Your task to perform on an android device: Empty the shopping cart on bestbuy.com. Add razer blade to the cart on bestbuy.com Image 0: 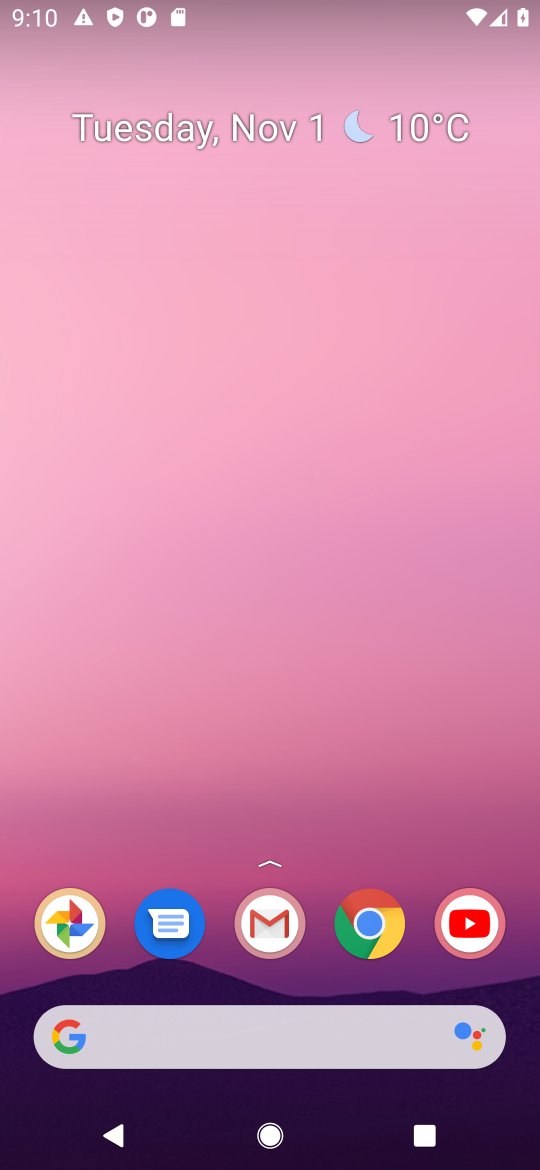
Step 0: drag from (316, 972) to (395, 115)
Your task to perform on an android device: Empty the shopping cart on bestbuy.com. Add razer blade to the cart on bestbuy.com Image 1: 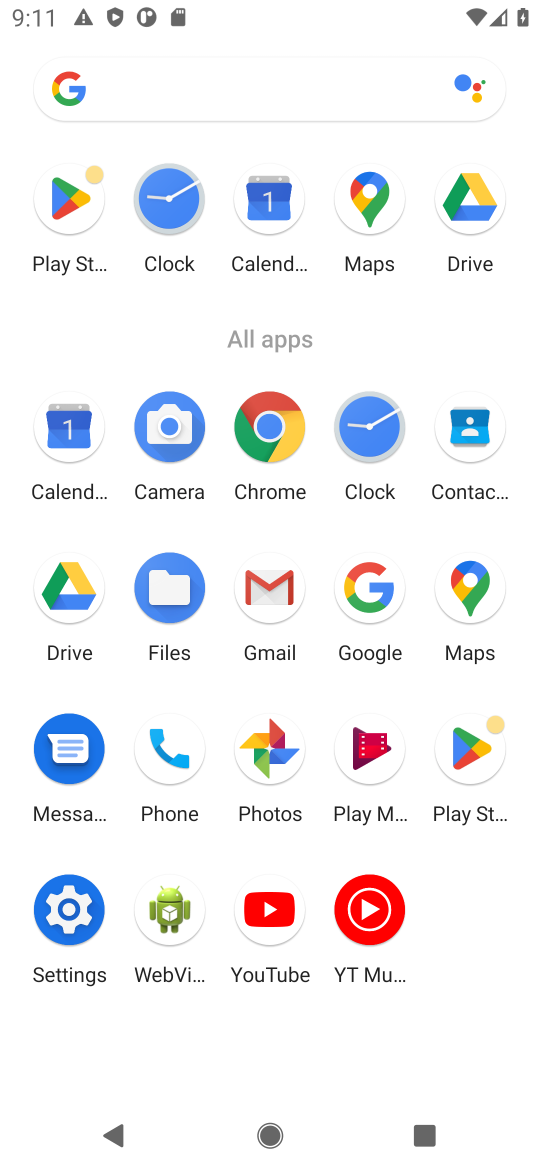
Step 1: click (273, 424)
Your task to perform on an android device: Empty the shopping cart on bestbuy.com. Add razer blade to the cart on bestbuy.com Image 2: 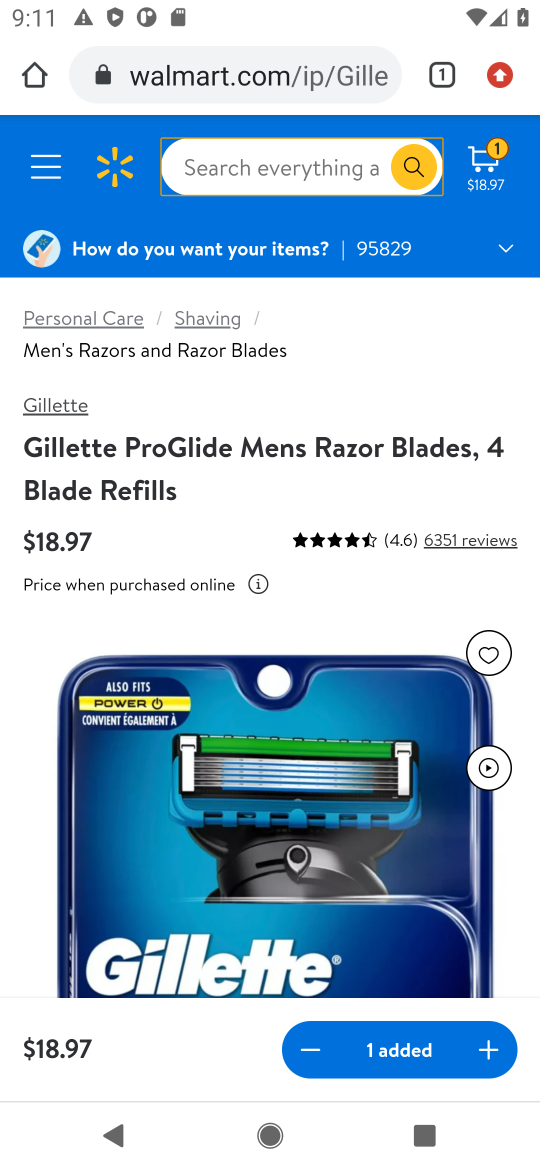
Step 2: click (313, 51)
Your task to perform on an android device: Empty the shopping cart on bestbuy.com. Add razer blade to the cart on bestbuy.com Image 3: 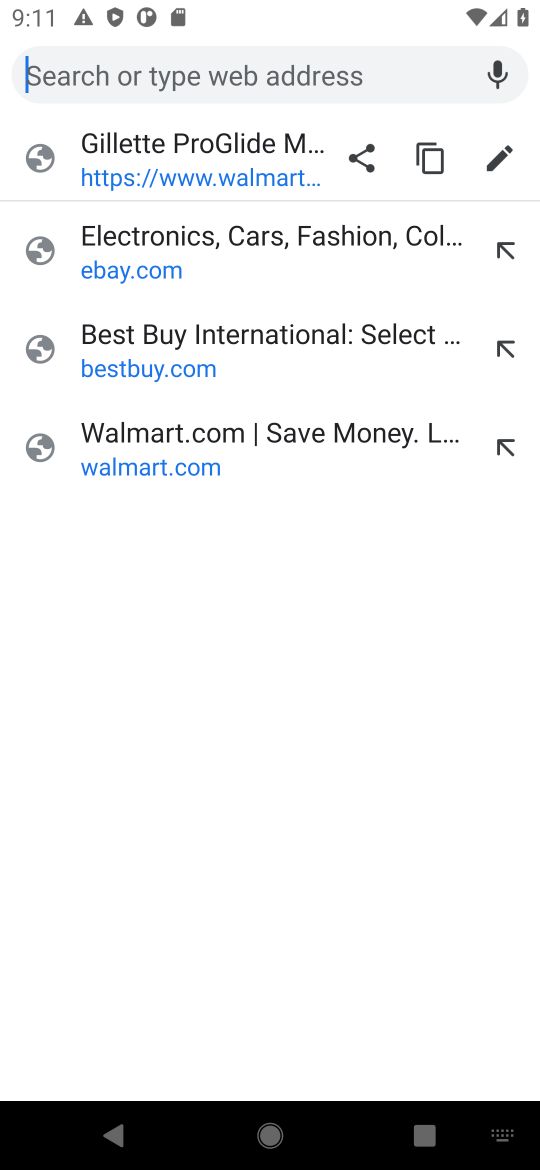
Step 3: type "bestbuy.com"
Your task to perform on an android device: Empty the shopping cart on bestbuy.com. Add razer blade to the cart on bestbuy.com Image 4: 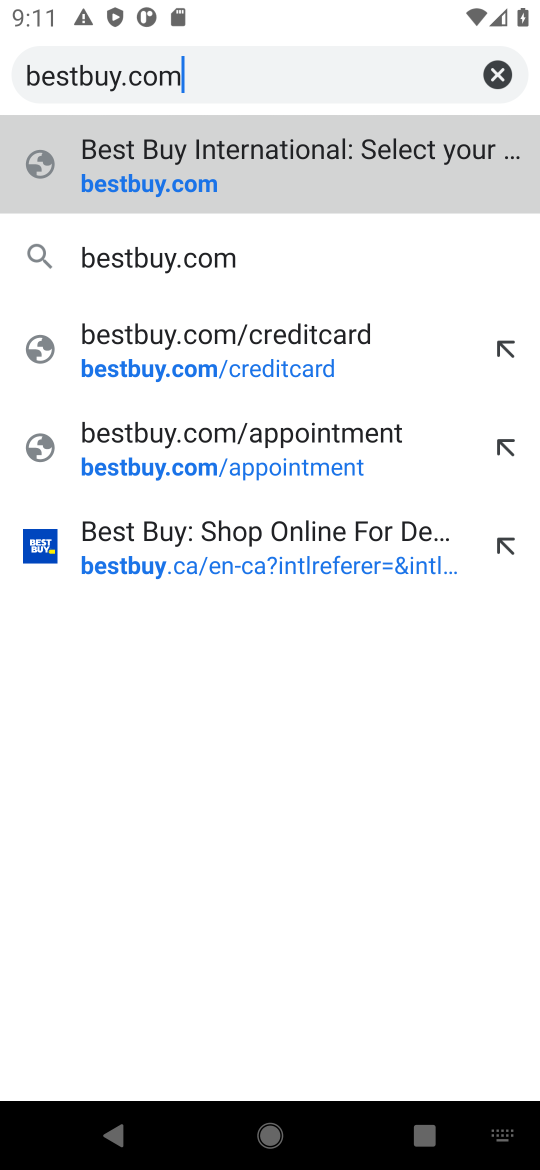
Step 4: press enter
Your task to perform on an android device: Empty the shopping cart on bestbuy.com. Add razer blade to the cart on bestbuy.com Image 5: 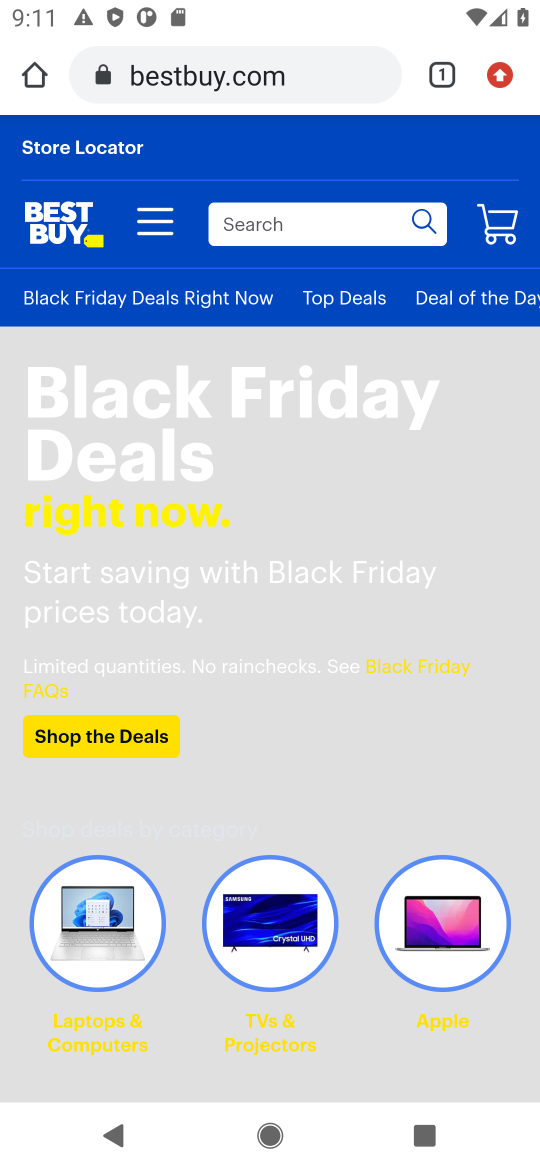
Step 5: click (502, 228)
Your task to perform on an android device: Empty the shopping cart on bestbuy.com. Add razer blade to the cart on bestbuy.com Image 6: 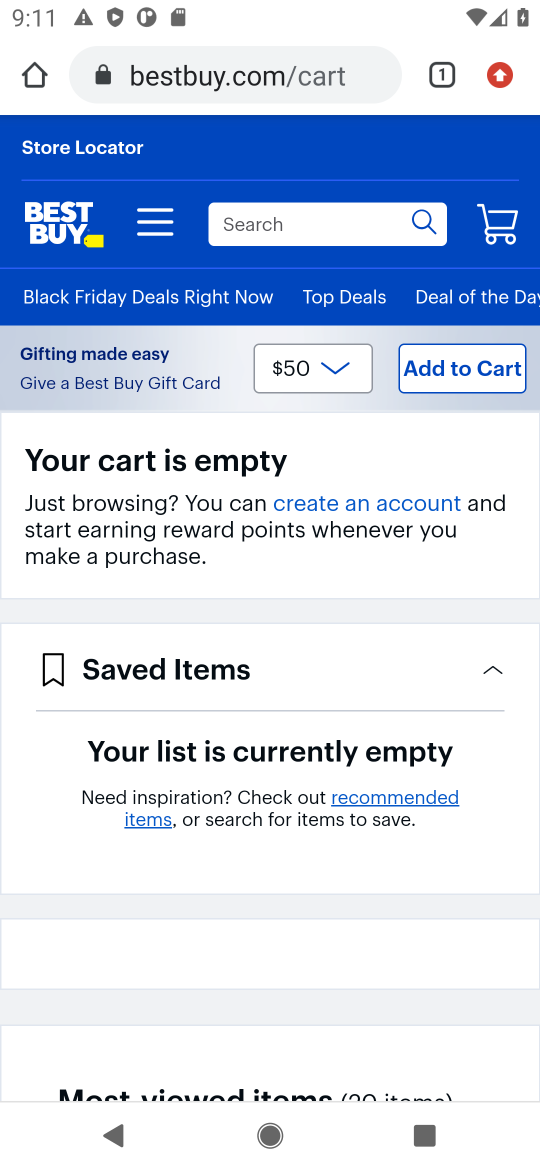
Step 6: click (303, 222)
Your task to perform on an android device: Empty the shopping cart on bestbuy.com. Add razer blade to the cart on bestbuy.com Image 7: 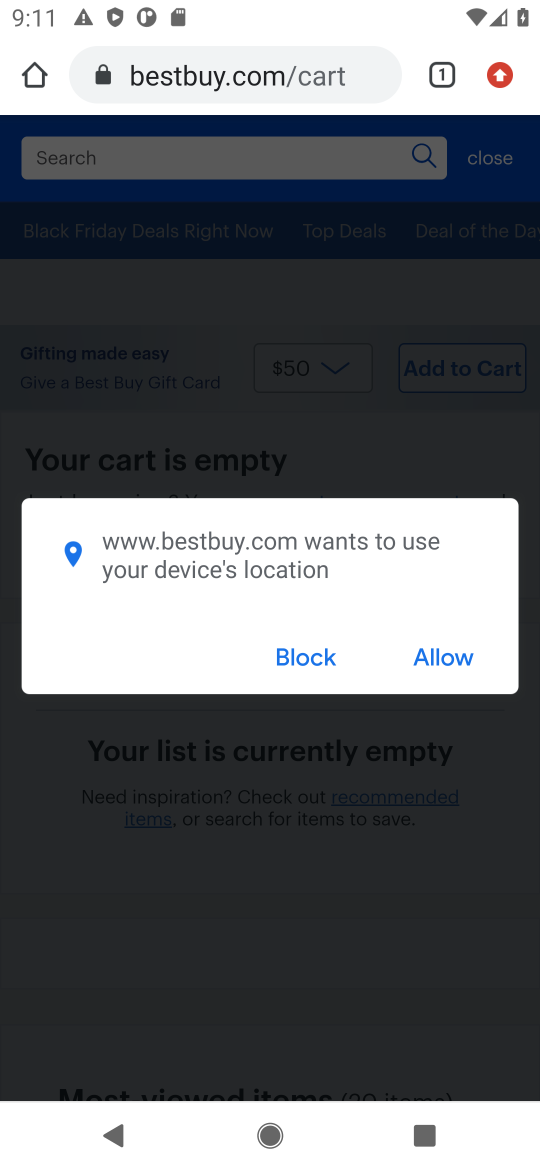
Step 7: type "razer"
Your task to perform on an android device: Empty the shopping cart on bestbuy.com. Add razer blade to the cart on bestbuy.com Image 8: 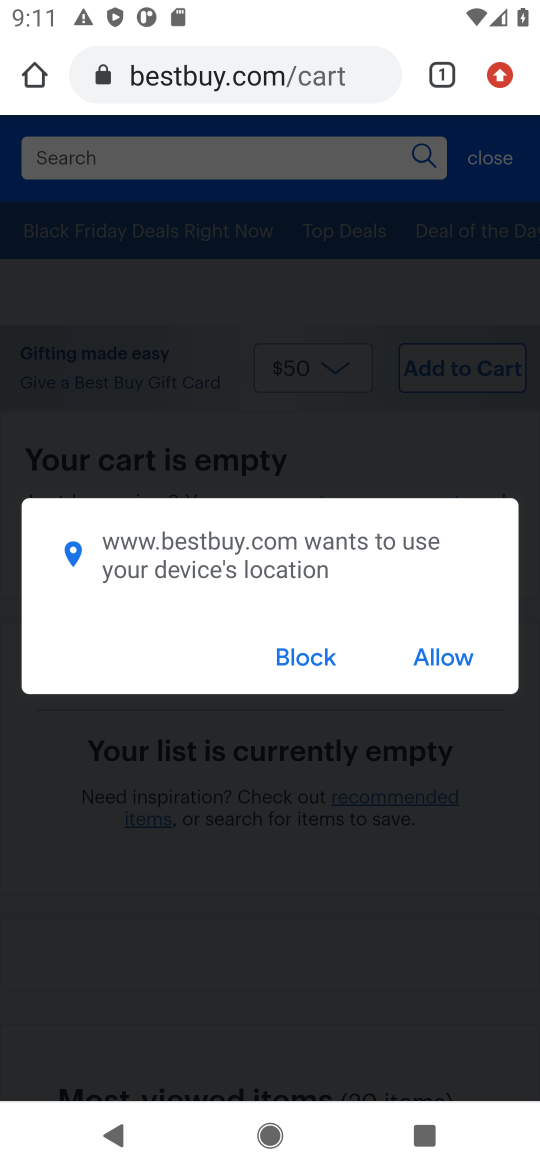
Step 8: click (298, 658)
Your task to perform on an android device: Empty the shopping cart on bestbuy.com. Add razer blade to the cart on bestbuy.com Image 9: 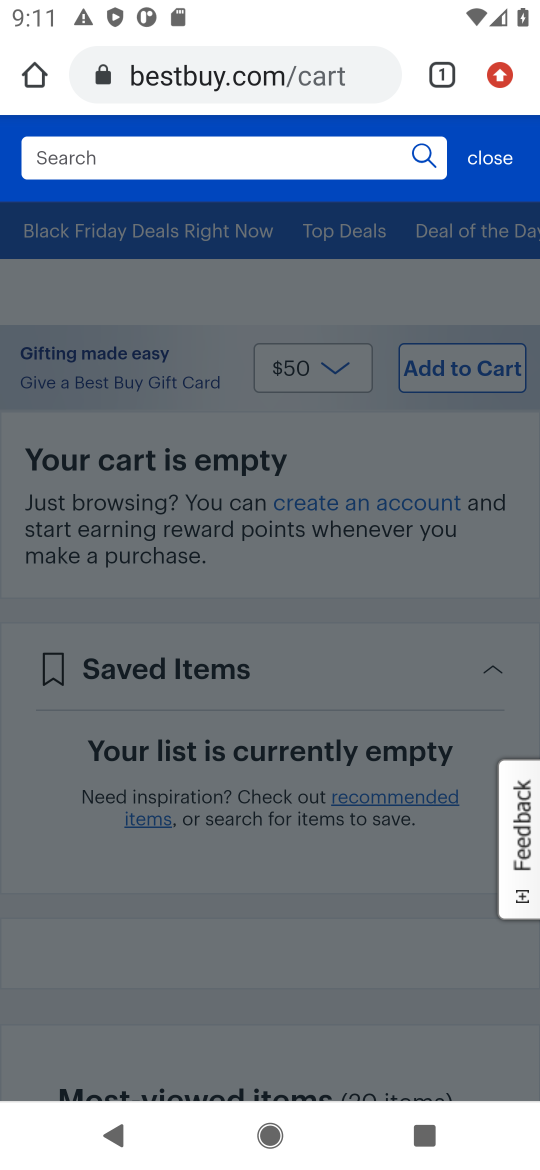
Step 9: click (254, 165)
Your task to perform on an android device: Empty the shopping cart on bestbuy.com. Add razer blade to the cart on bestbuy.com Image 10: 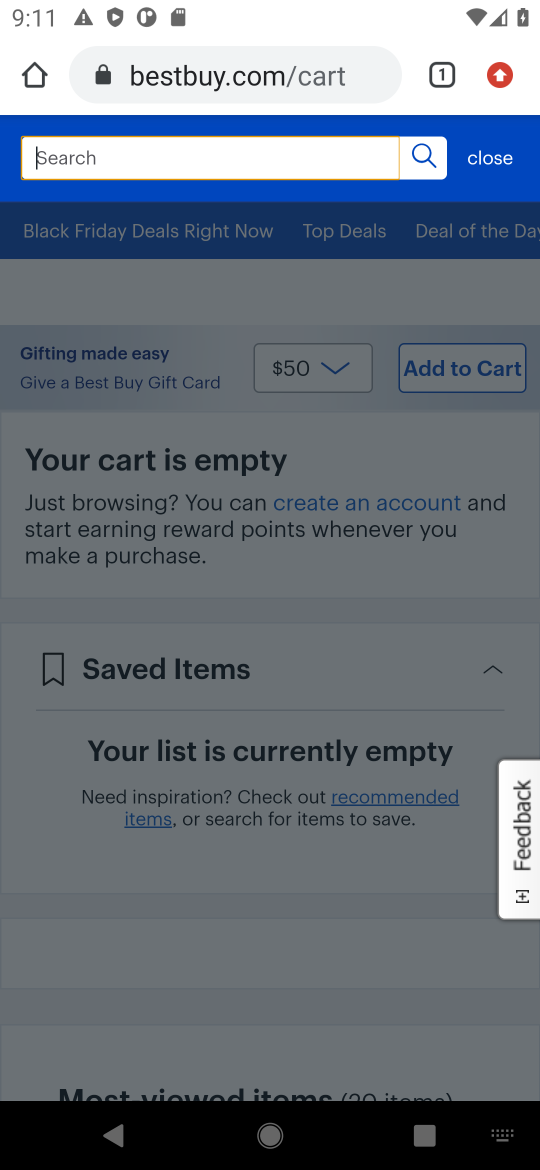
Step 10: type "razer blade"
Your task to perform on an android device: Empty the shopping cart on bestbuy.com. Add razer blade to the cart on bestbuy.com Image 11: 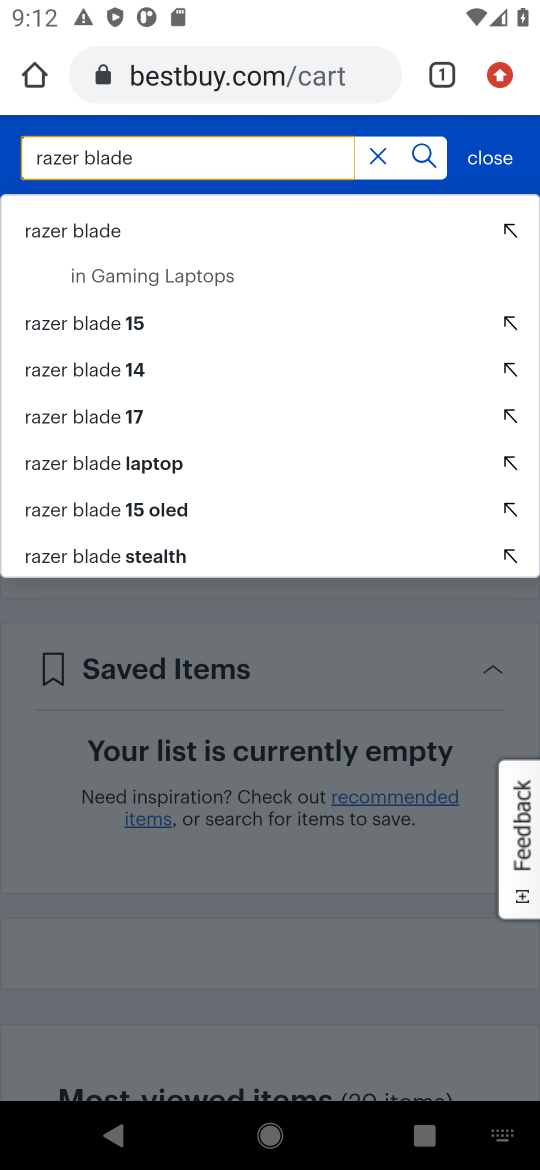
Step 11: press enter
Your task to perform on an android device: Empty the shopping cart on bestbuy.com. Add razer blade to the cart on bestbuy.com Image 12: 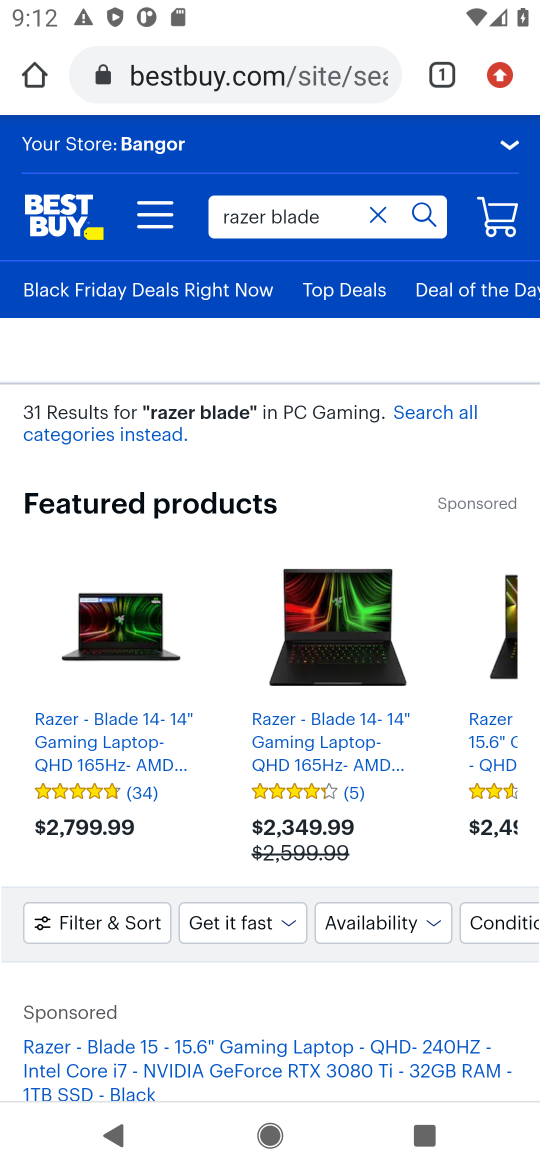
Step 12: drag from (339, 944) to (381, 284)
Your task to perform on an android device: Empty the shopping cart on bestbuy.com. Add razer blade to the cart on bestbuy.com Image 13: 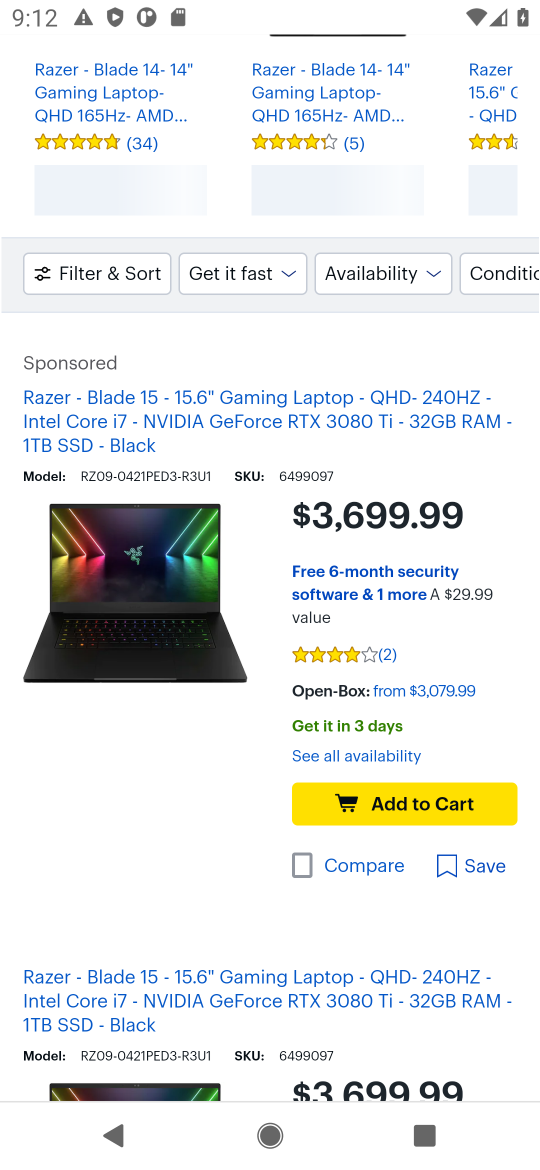
Step 13: drag from (181, 878) to (172, 209)
Your task to perform on an android device: Empty the shopping cart on bestbuy.com. Add razer blade to the cart on bestbuy.com Image 14: 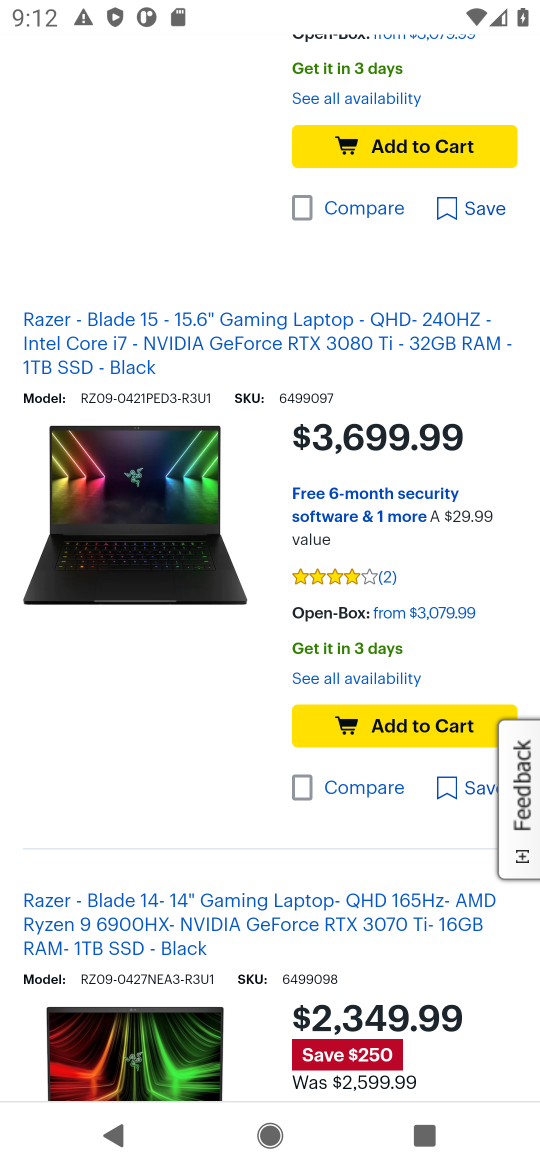
Step 14: click (418, 718)
Your task to perform on an android device: Empty the shopping cart on bestbuy.com. Add razer blade to the cart on bestbuy.com Image 15: 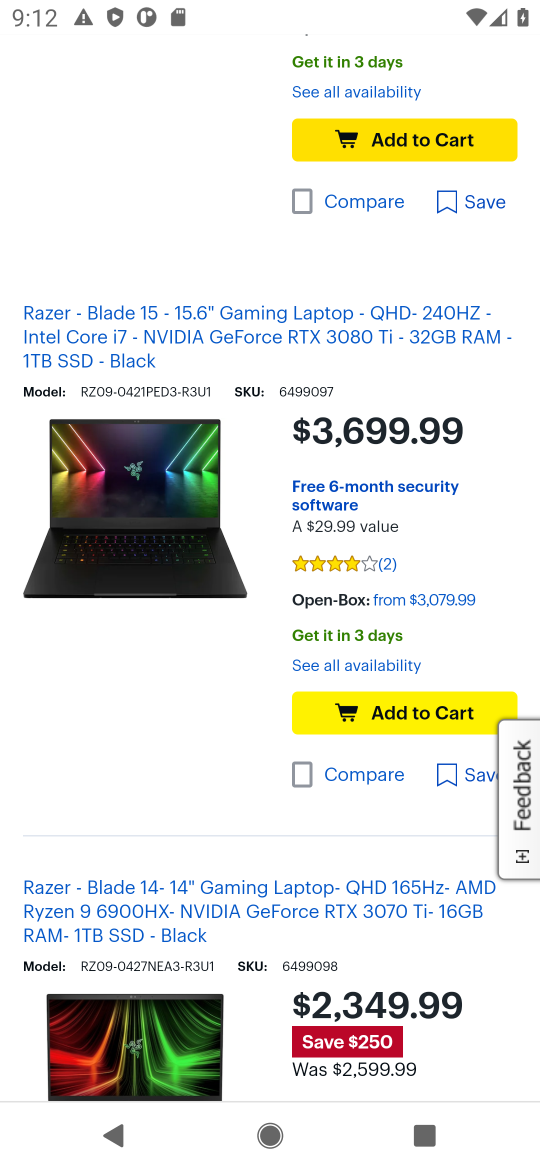
Step 15: click (418, 711)
Your task to perform on an android device: Empty the shopping cart on bestbuy.com. Add razer blade to the cart on bestbuy.com Image 16: 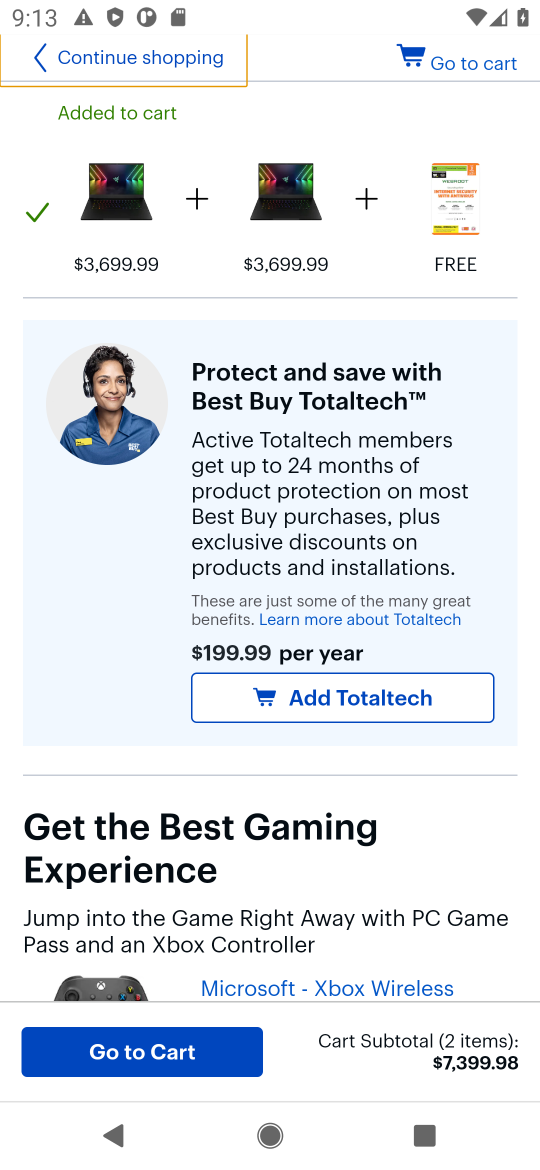
Step 16: task complete